Your task to perform on an android device: Open the calendar and show me this week's events Image 0: 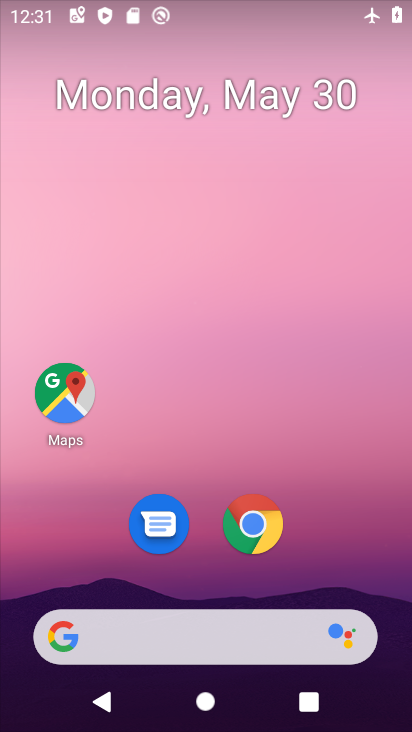
Step 0: drag from (309, 541) to (311, 48)
Your task to perform on an android device: Open the calendar and show me this week's events Image 1: 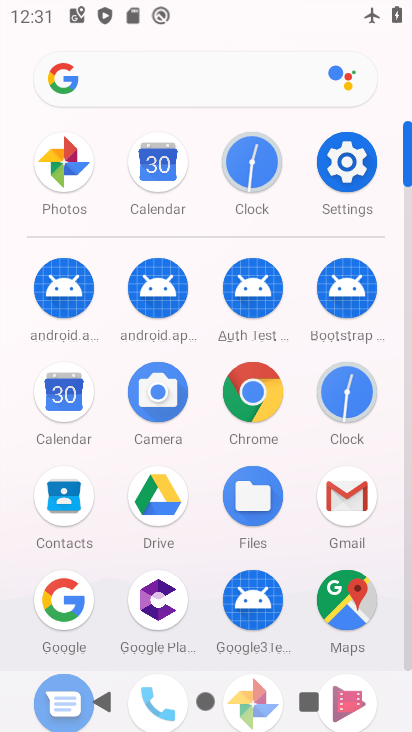
Step 1: click (155, 168)
Your task to perform on an android device: Open the calendar and show me this week's events Image 2: 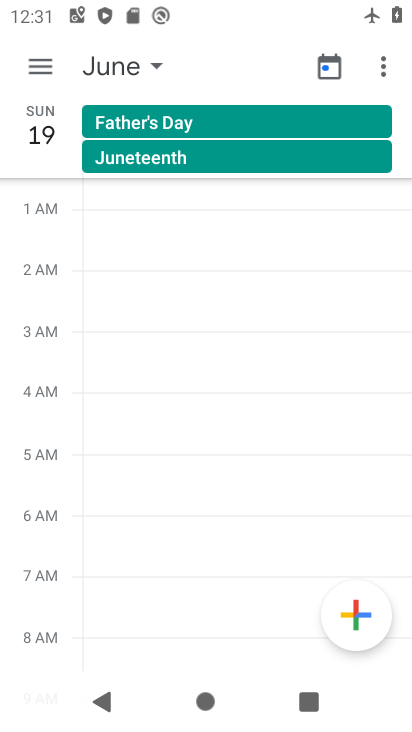
Step 2: click (42, 59)
Your task to perform on an android device: Open the calendar and show me this week's events Image 3: 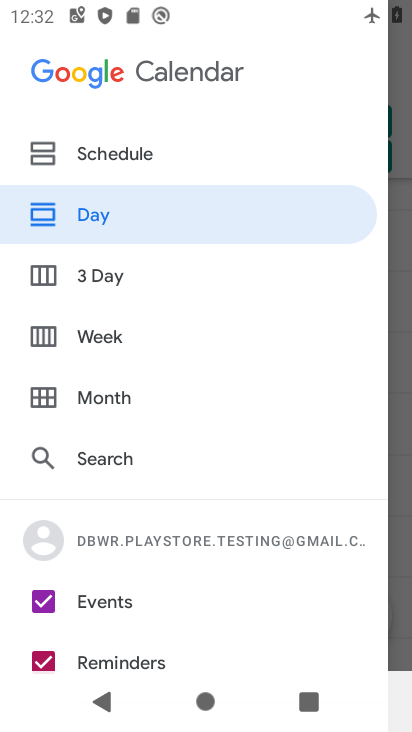
Step 3: click (60, 324)
Your task to perform on an android device: Open the calendar and show me this week's events Image 4: 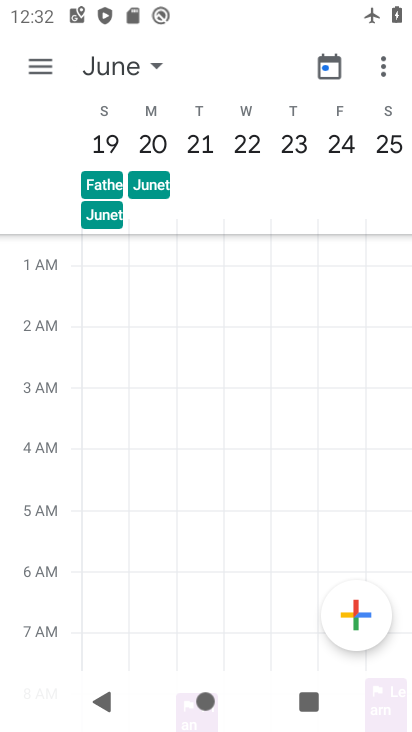
Step 4: task complete